Your task to perform on an android device: empty trash in google photos Image 0: 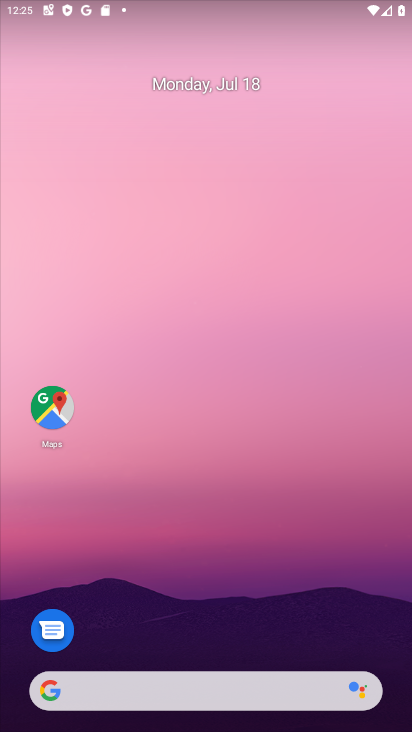
Step 0: drag from (119, 687) to (188, 27)
Your task to perform on an android device: empty trash in google photos Image 1: 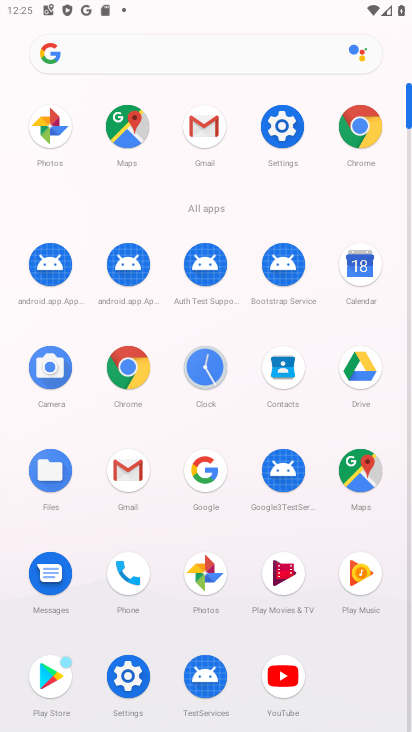
Step 1: click (214, 570)
Your task to perform on an android device: empty trash in google photos Image 2: 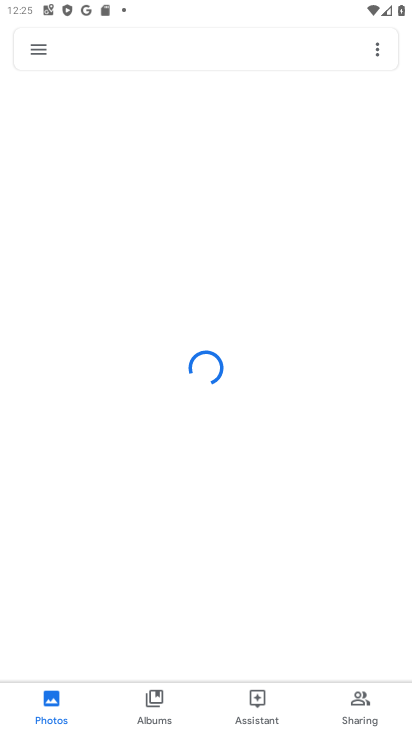
Step 2: click (43, 48)
Your task to perform on an android device: empty trash in google photos Image 3: 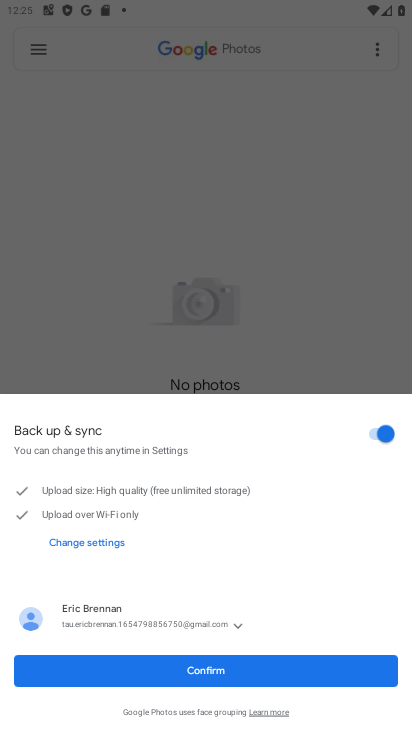
Step 3: click (271, 669)
Your task to perform on an android device: empty trash in google photos Image 4: 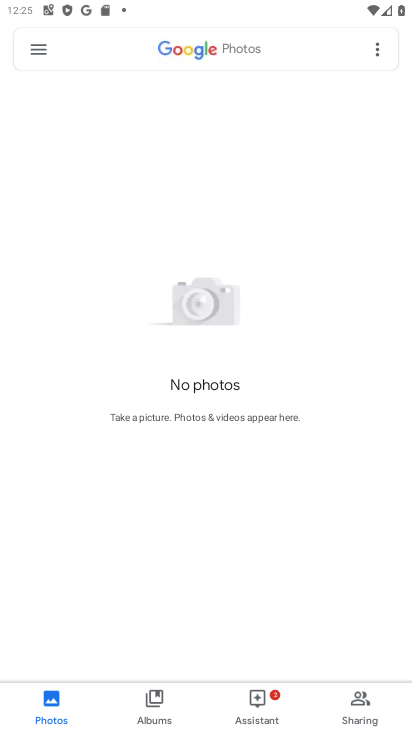
Step 4: click (36, 50)
Your task to perform on an android device: empty trash in google photos Image 5: 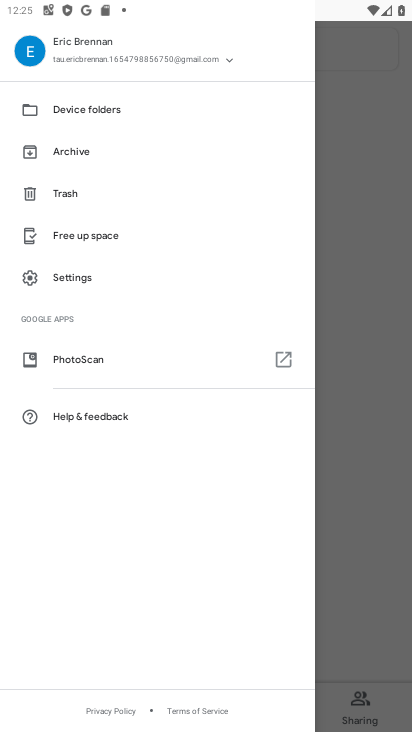
Step 5: click (92, 195)
Your task to perform on an android device: empty trash in google photos Image 6: 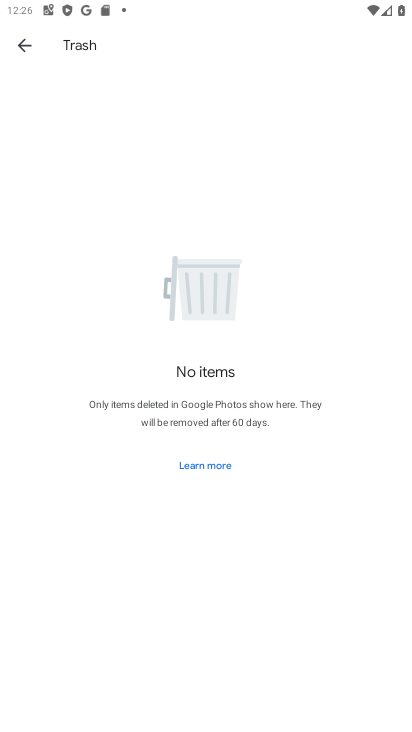
Step 6: task complete